Your task to perform on an android device: see sites visited before in the chrome app Image 0: 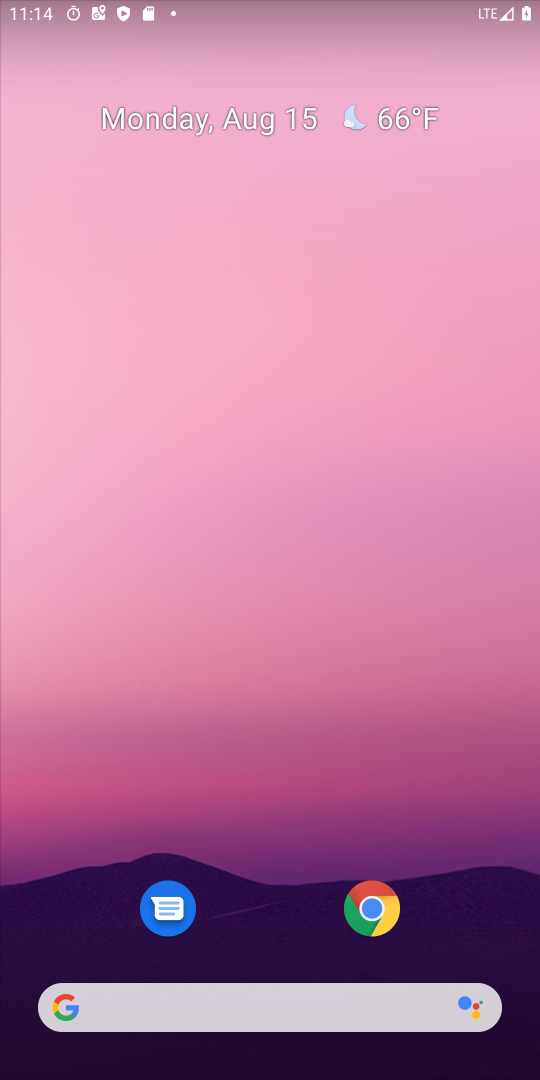
Step 0: click (375, 897)
Your task to perform on an android device: see sites visited before in the chrome app Image 1: 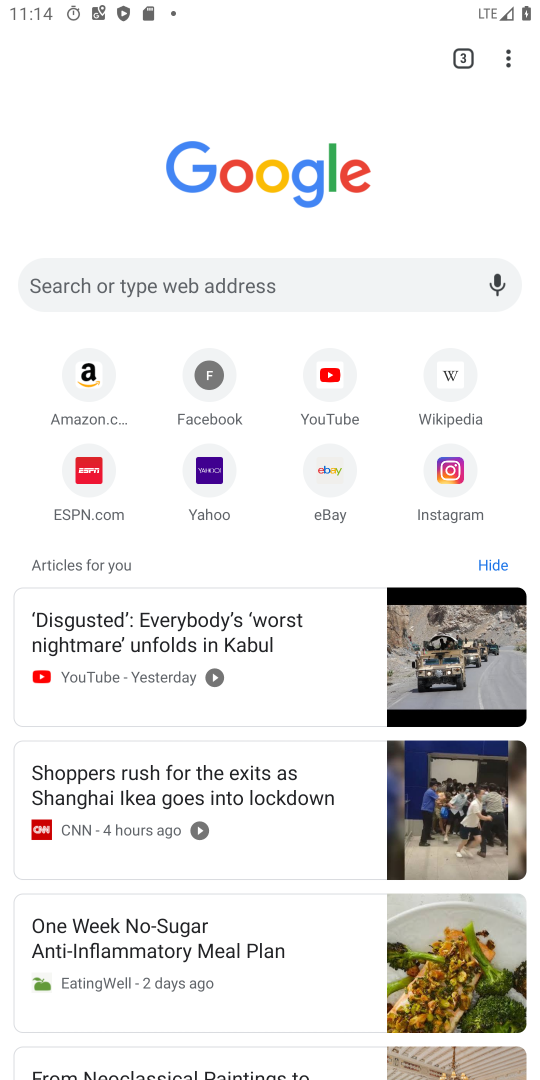
Step 1: click (521, 57)
Your task to perform on an android device: see sites visited before in the chrome app Image 2: 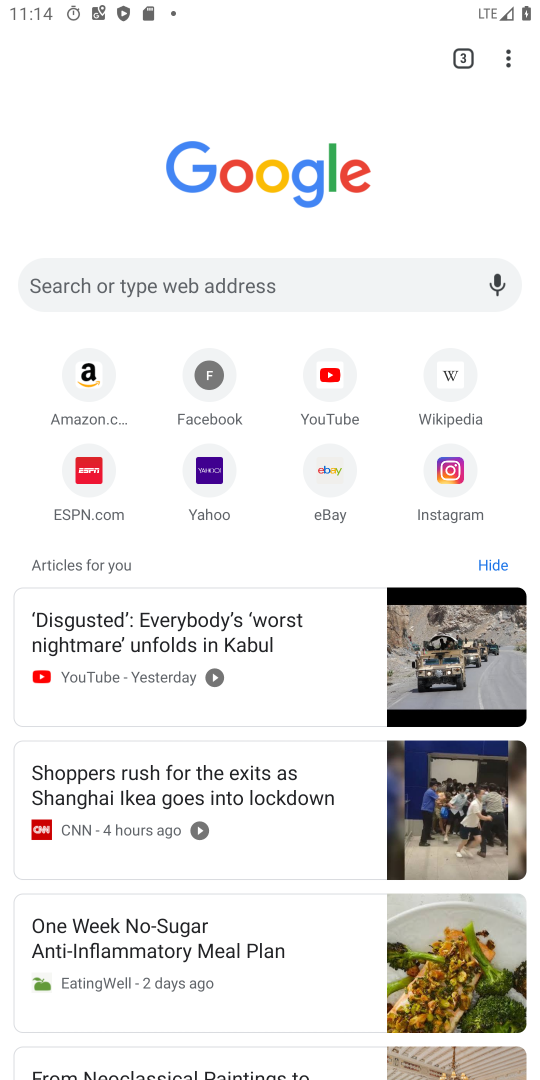
Step 2: click (511, 57)
Your task to perform on an android device: see sites visited before in the chrome app Image 3: 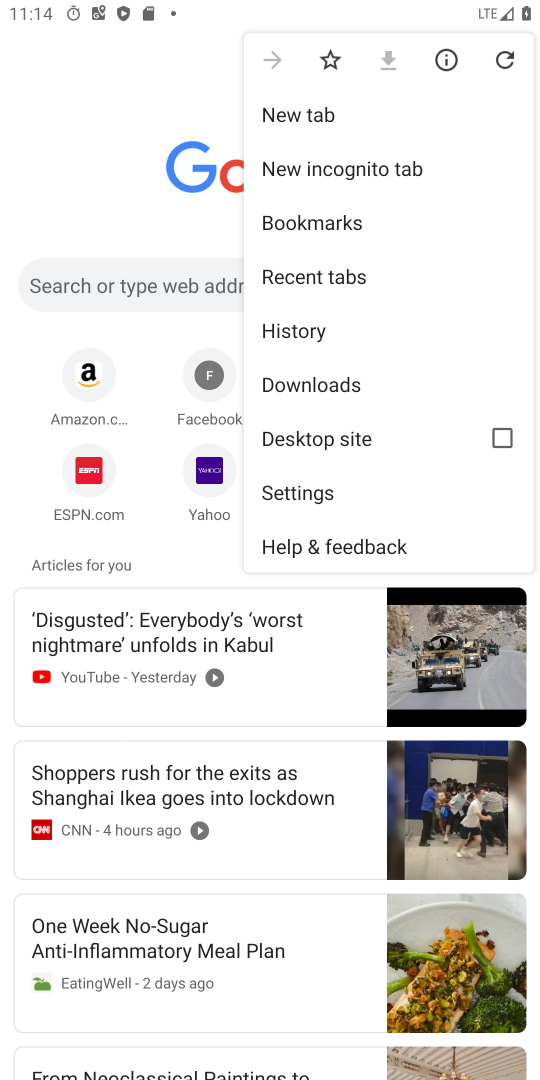
Step 3: click (395, 291)
Your task to perform on an android device: see sites visited before in the chrome app Image 4: 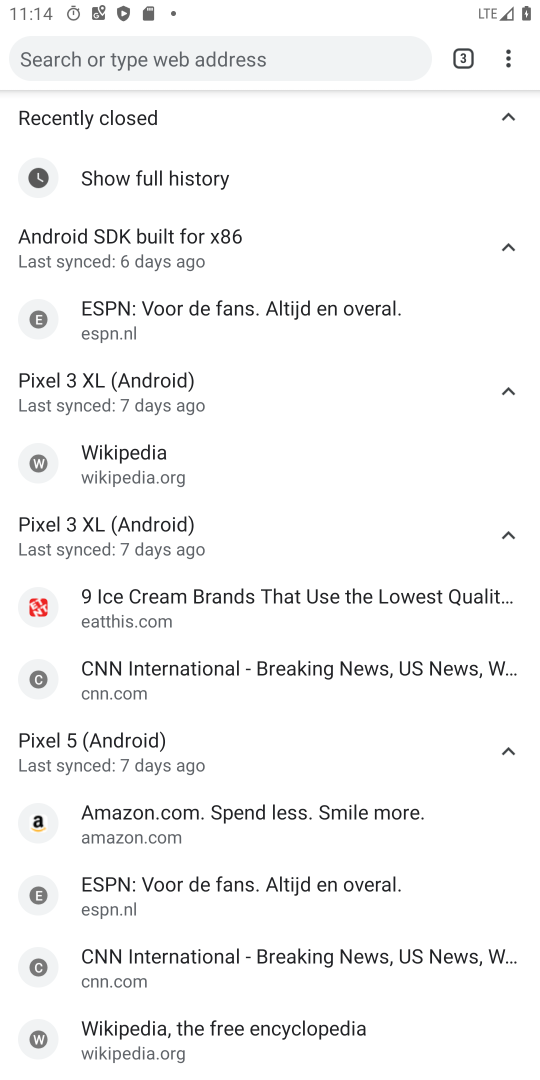
Step 4: task complete